Your task to perform on an android device: open chrome and create a bookmark for the current page Image 0: 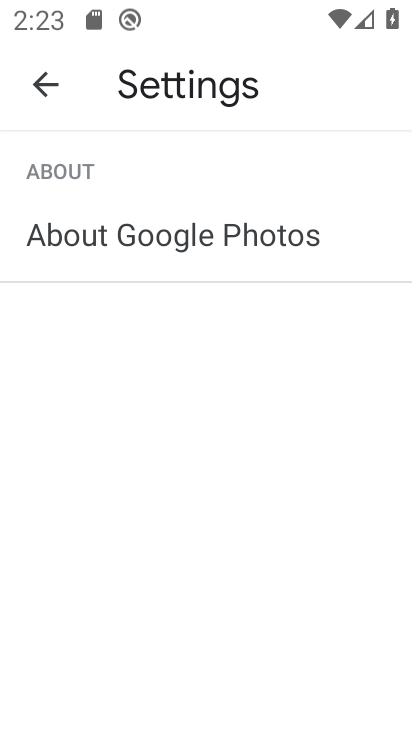
Step 0: press back button
Your task to perform on an android device: open chrome and create a bookmark for the current page Image 1: 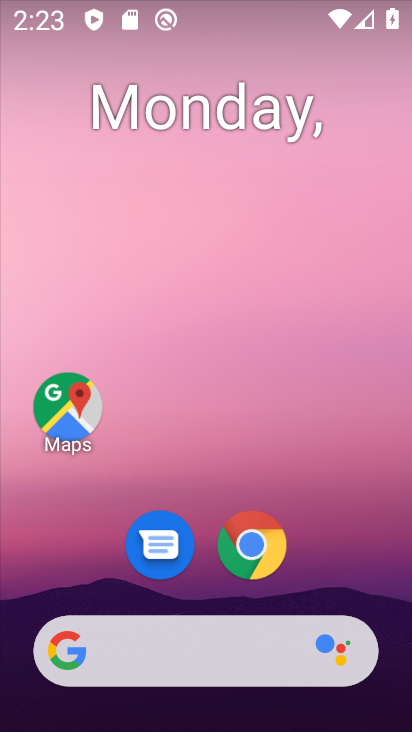
Step 1: click (260, 539)
Your task to perform on an android device: open chrome and create a bookmark for the current page Image 2: 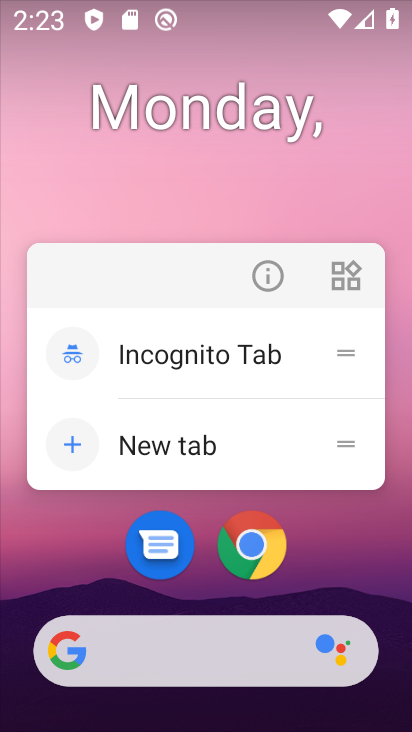
Step 2: click (246, 537)
Your task to perform on an android device: open chrome and create a bookmark for the current page Image 3: 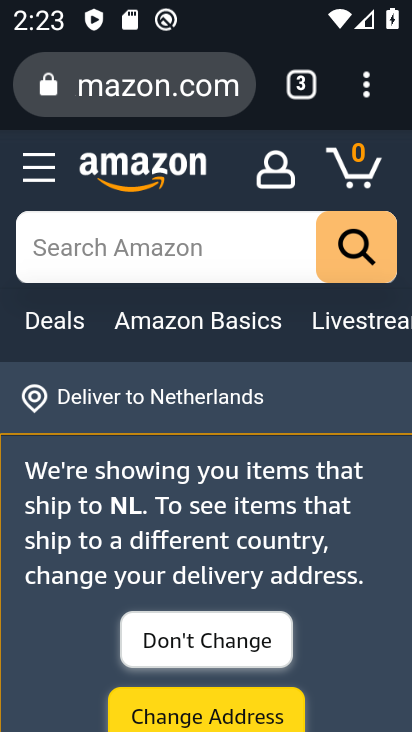
Step 3: click (364, 94)
Your task to perform on an android device: open chrome and create a bookmark for the current page Image 4: 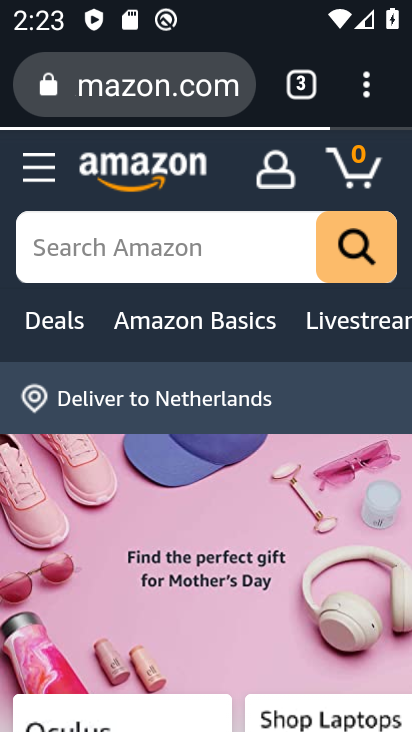
Step 4: click (373, 58)
Your task to perform on an android device: open chrome and create a bookmark for the current page Image 5: 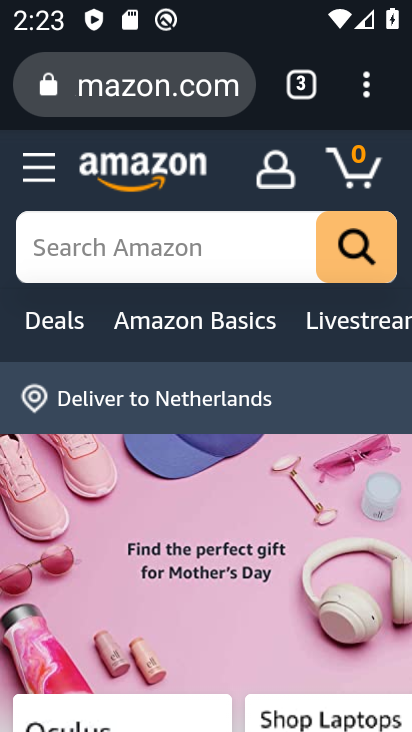
Step 5: task complete